Your task to perform on an android device: turn off smart reply in the gmail app Image 0: 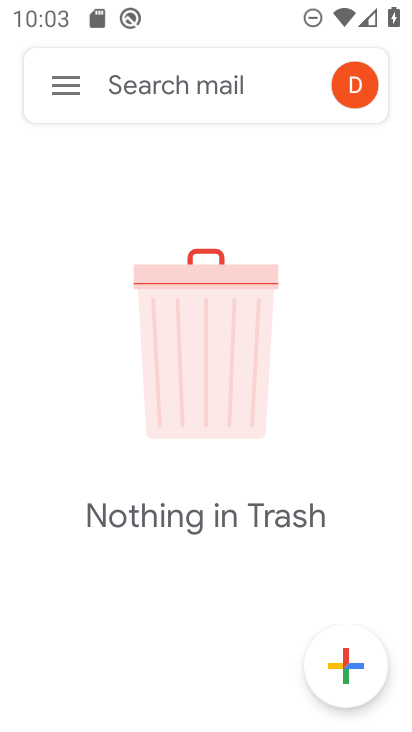
Step 0: click (74, 91)
Your task to perform on an android device: turn off smart reply in the gmail app Image 1: 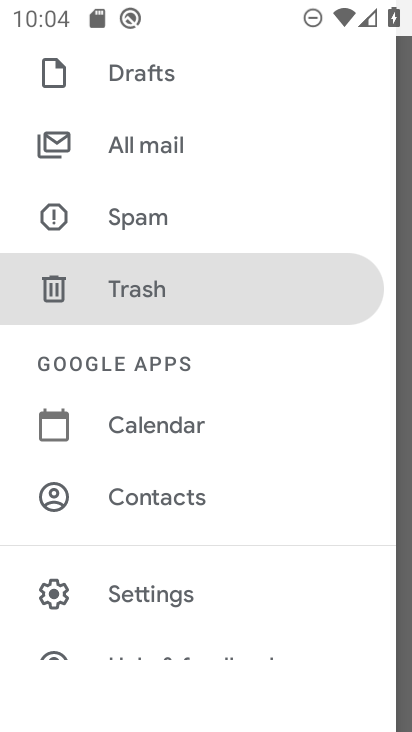
Step 1: drag from (157, 540) to (185, 321)
Your task to perform on an android device: turn off smart reply in the gmail app Image 2: 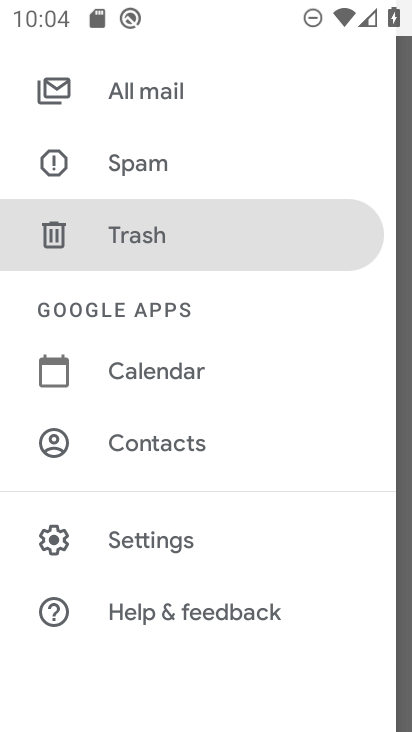
Step 2: click (160, 542)
Your task to perform on an android device: turn off smart reply in the gmail app Image 3: 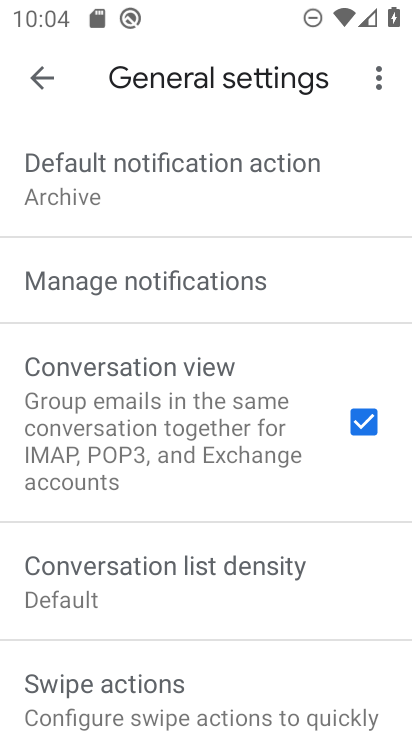
Step 3: click (46, 79)
Your task to perform on an android device: turn off smart reply in the gmail app Image 4: 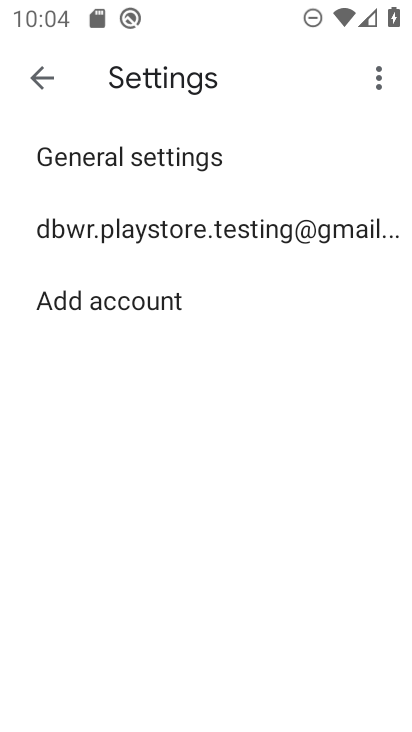
Step 4: click (158, 235)
Your task to perform on an android device: turn off smart reply in the gmail app Image 5: 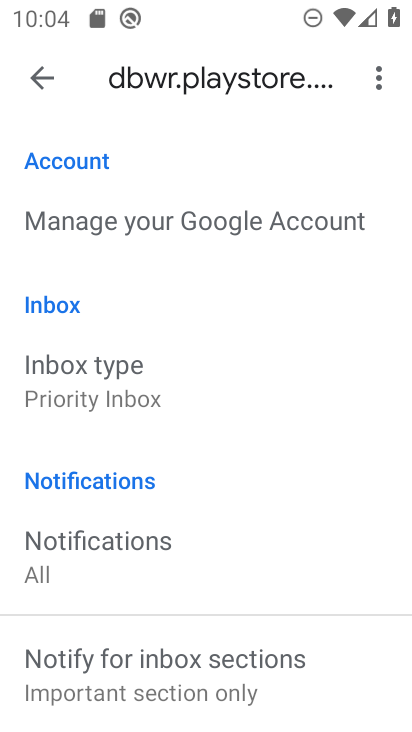
Step 5: drag from (140, 516) to (177, 207)
Your task to perform on an android device: turn off smart reply in the gmail app Image 6: 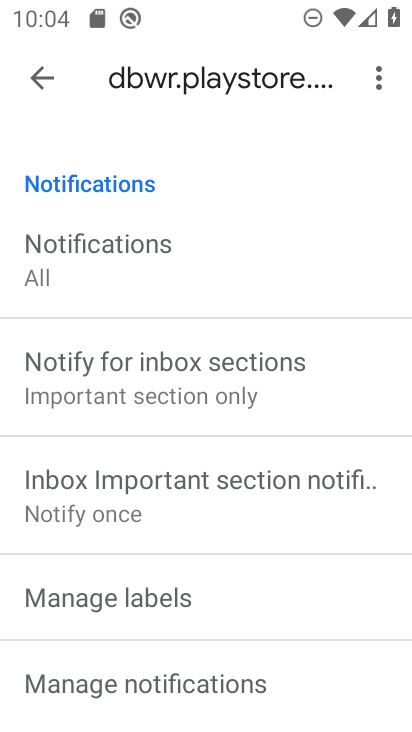
Step 6: drag from (159, 519) to (174, 235)
Your task to perform on an android device: turn off smart reply in the gmail app Image 7: 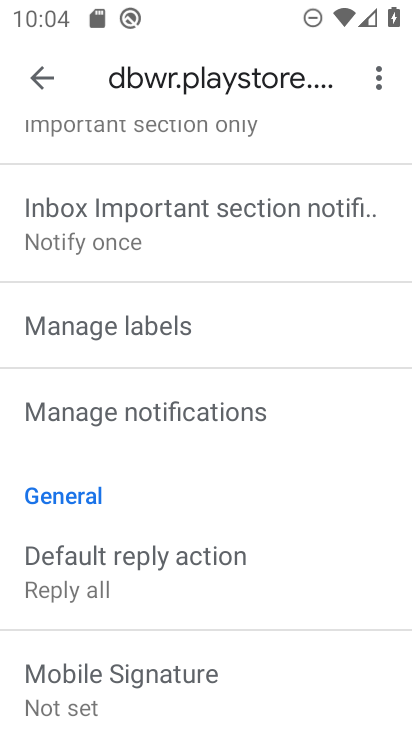
Step 7: drag from (205, 370) to (258, 170)
Your task to perform on an android device: turn off smart reply in the gmail app Image 8: 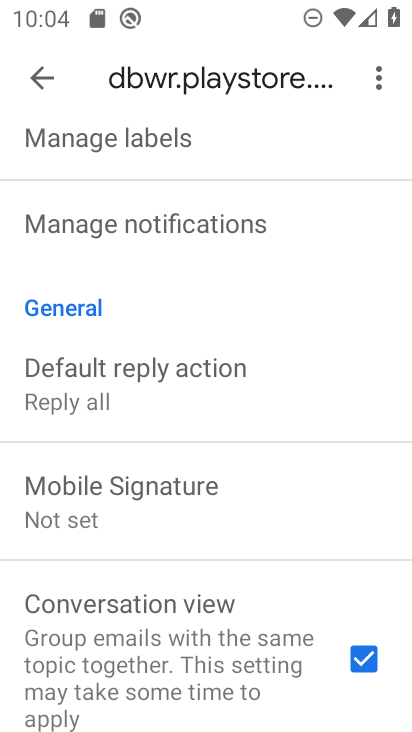
Step 8: drag from (170, 563) to (227, 212)
Your task to perform on an android device: turn off smart reply in the gmail app Image 9: 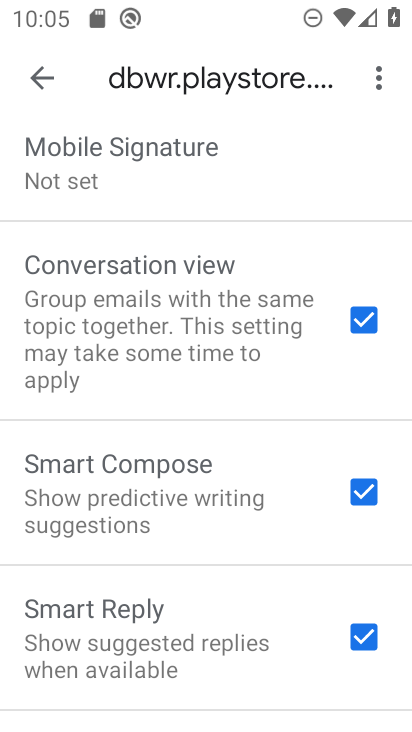
Step 9: click (223, 595)
Your task to perform on an android device: turn off smart reply in the gmail app Image 10: 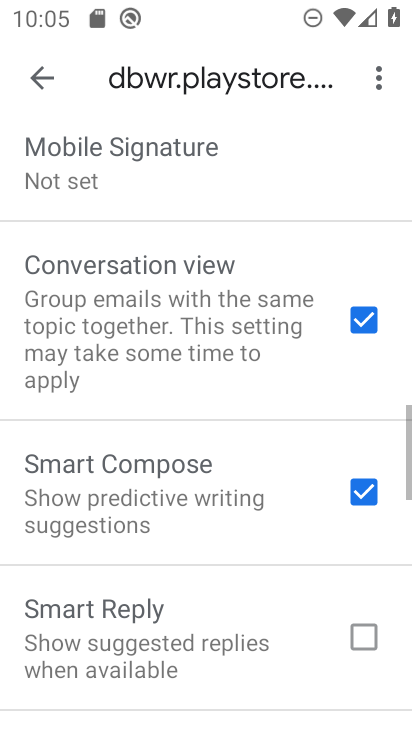
Step 10: task complete